Your task to perform on an android device: Show me recent news Image 0: 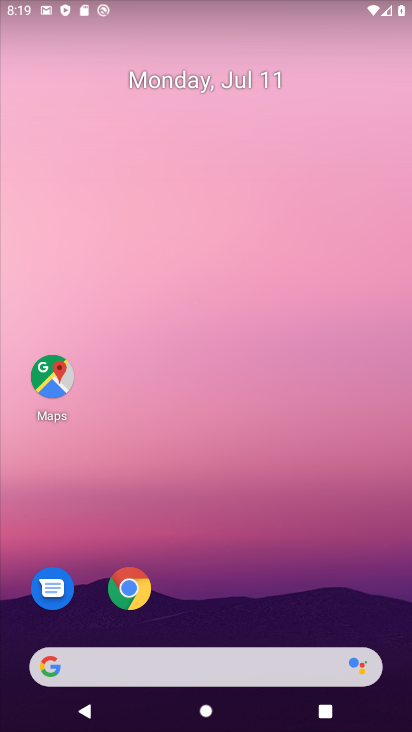
Step 0: click (202, 663)
Your task to perform on an android device: Show me recent news Image 1: 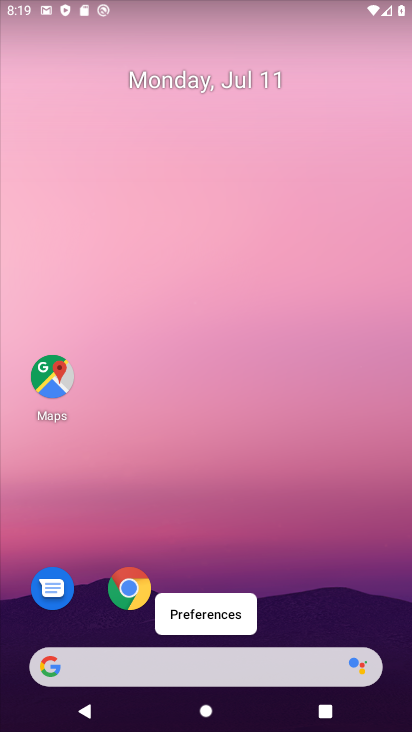
Step 1: click (188, 662)
Your task to perform on an android device: Show me recent news Image 2: 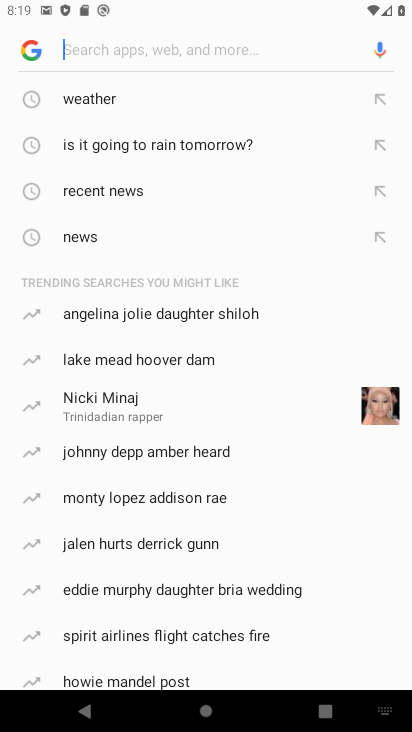
Step 2: click (122, 194)
Your task to perform on an android device: Show me recent news Image 3: 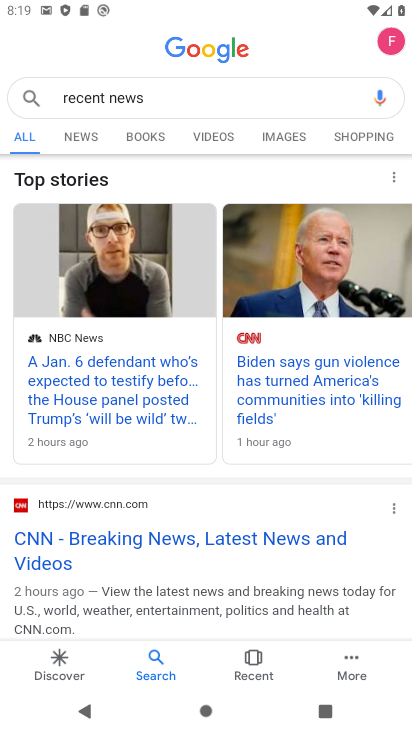
Step 3: task complete